Your task to perform on an android device: What is the recent news? Image 0: 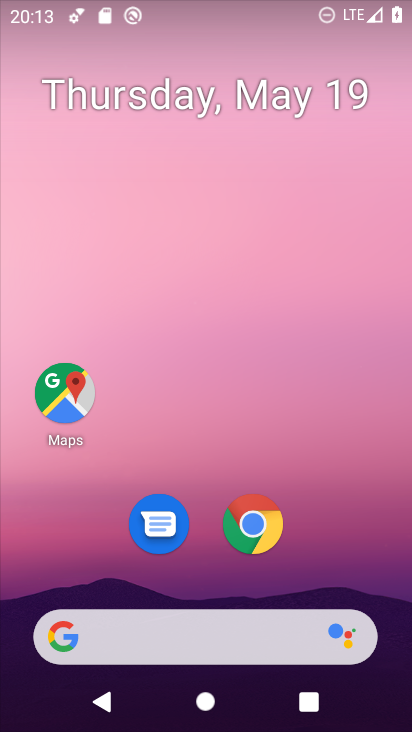
Step 0: click (241, 632)
Your task to perform on an android device: What is the recent news? Image 1: 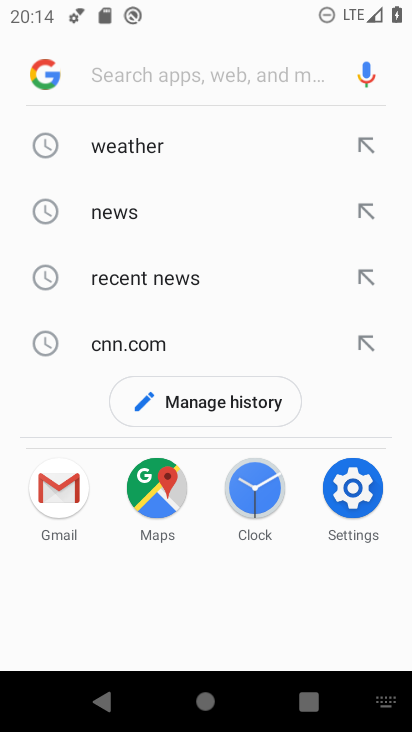
Step 1: click (102, 274)
Your task to perform on an android device: What is the recent news? Image 2: 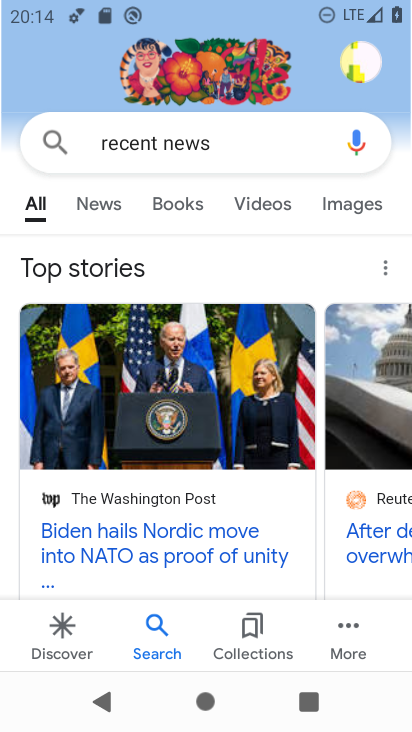
Step 2: task complete